Your task to perform on an android device: Open network settings Image 0: 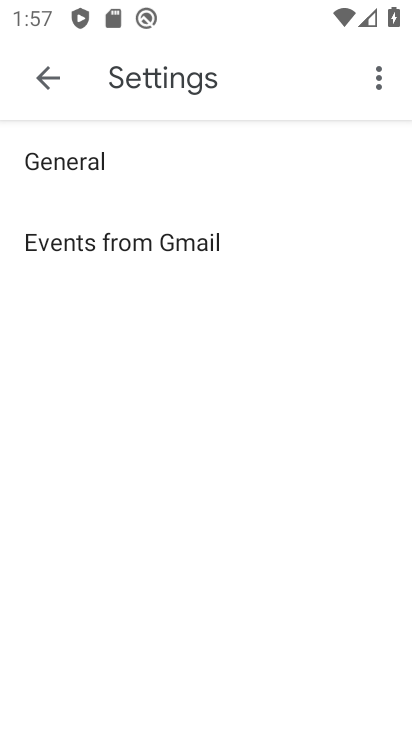
Step 0: press home button
Your task to perform on an android device: Open network settings Image 1: 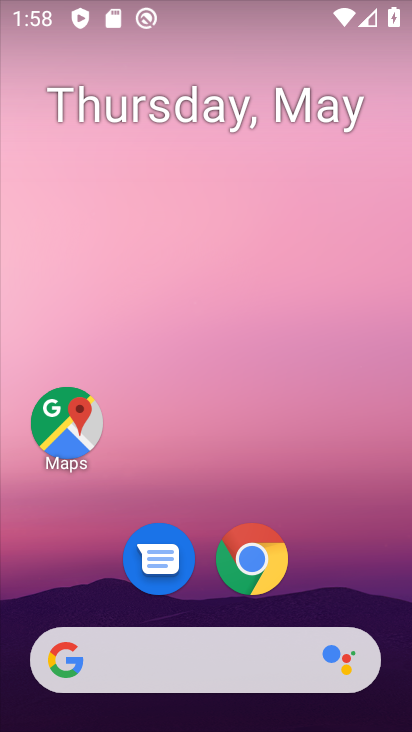
Step 1: drag from (202, 609) to (223, 253)
Your task to perform on an android device: Open network settings Image 2: 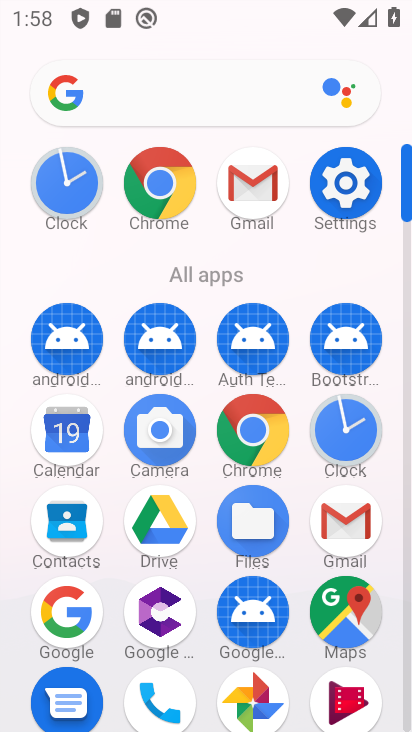
Step 2: click (325, 177)
Your task to perform on an android device: Open network settings Image 3: 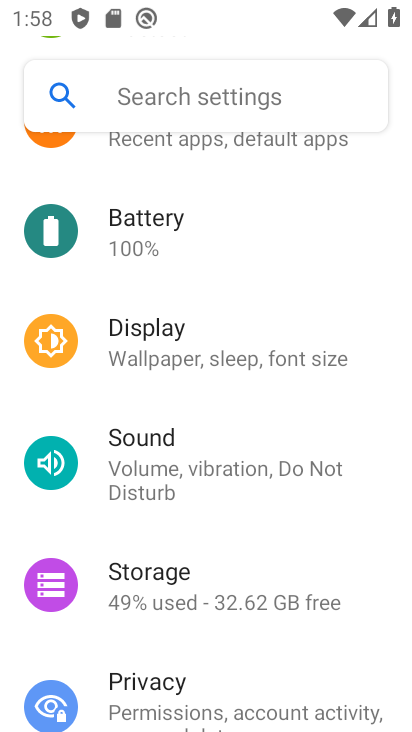
Step 3: drag from (222, 265) to (234, 480)
Your task to perform on an android device: Open network settings Image 4: 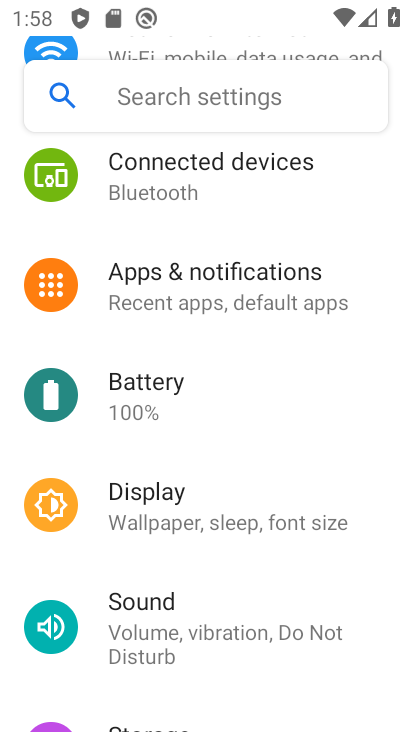
Step 4: drag from (233, 260) to (242, 459)
Your task to perform on an android device: Open network settings Image 5: 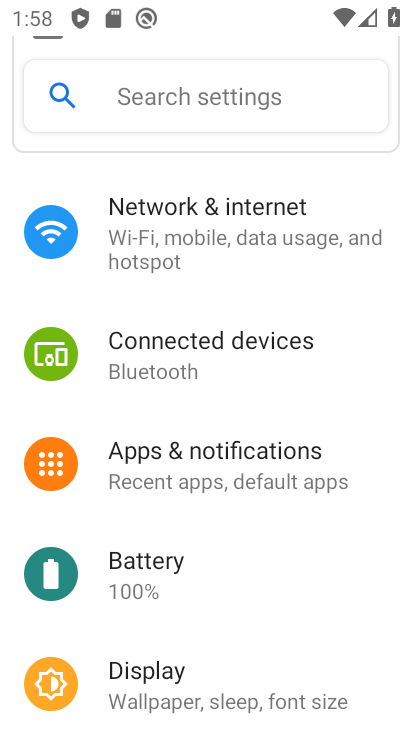
Step 5: click (233, 237)
Your task to perform on an android device: Open network settings Image 6: 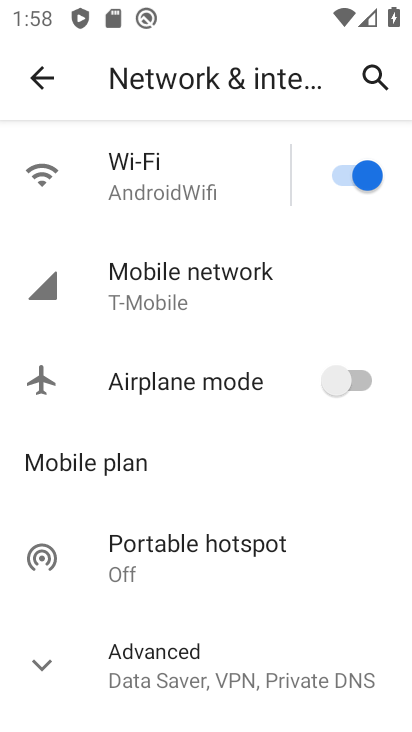
Step 6: click (190, 296)
Your task to perform on an android device: Open network settings Image 7: 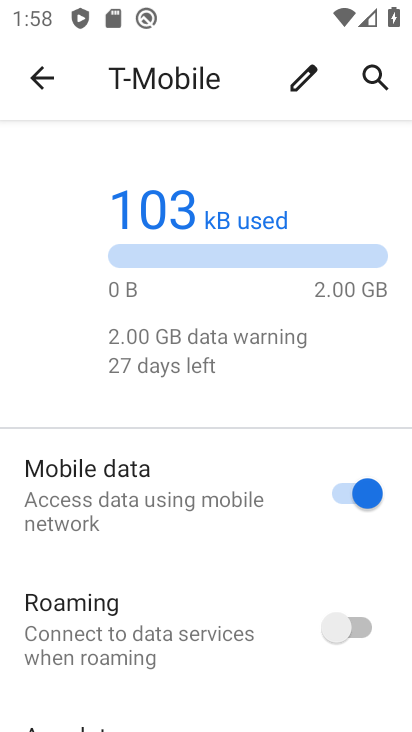
Step 7: task complete